Your task to perform on an android device: What's the news in Pakistan? Image 0: 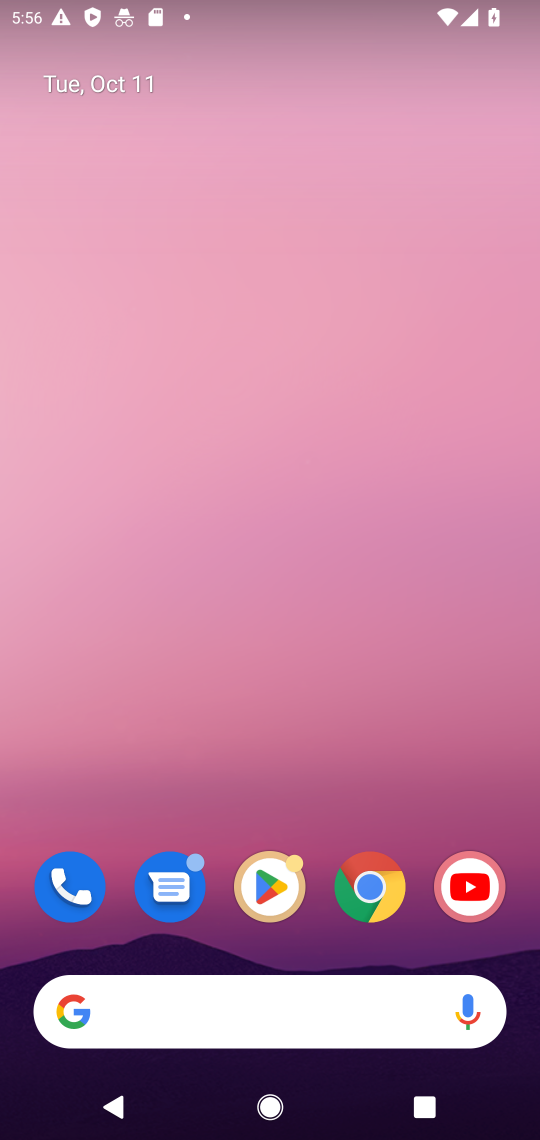
Step 0: click (201, 1008)
Your task to perform on an android device: What's the news in Pakistan? Image 1: 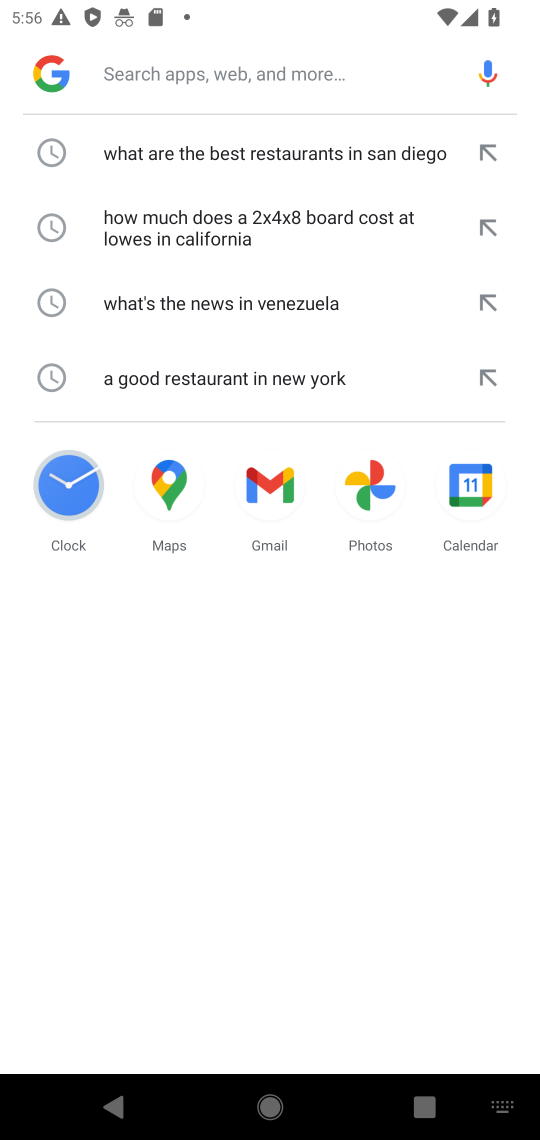
Step 1: type "What's the news in Pakistan?"
Your task to perform on an android device: What's the news in Pakistan? Image 2: 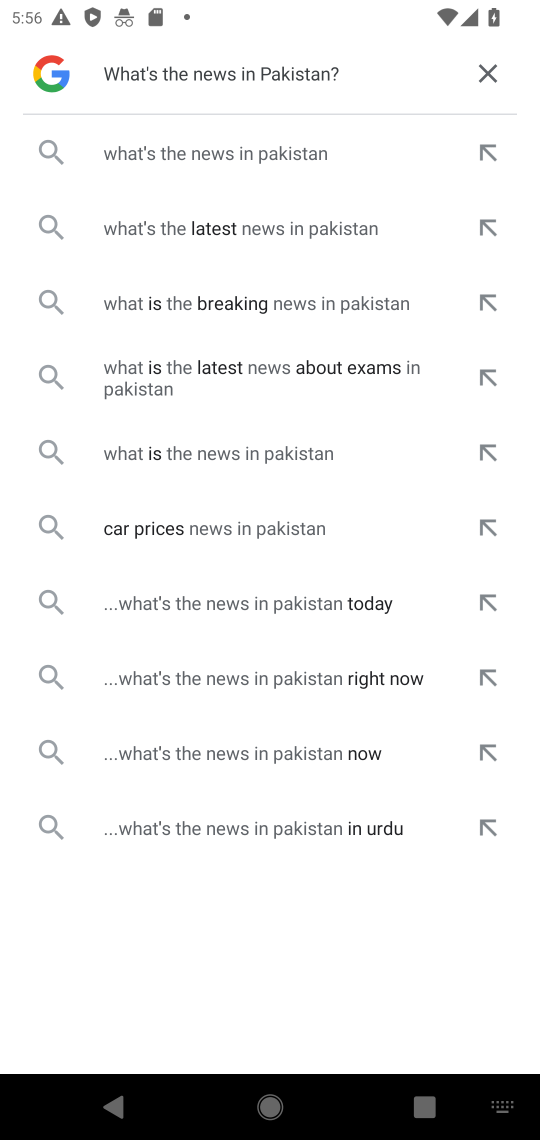
Step 2: click (141, 167)
Your task to perform on an android device: What's the news in Pakistan? Image 3: 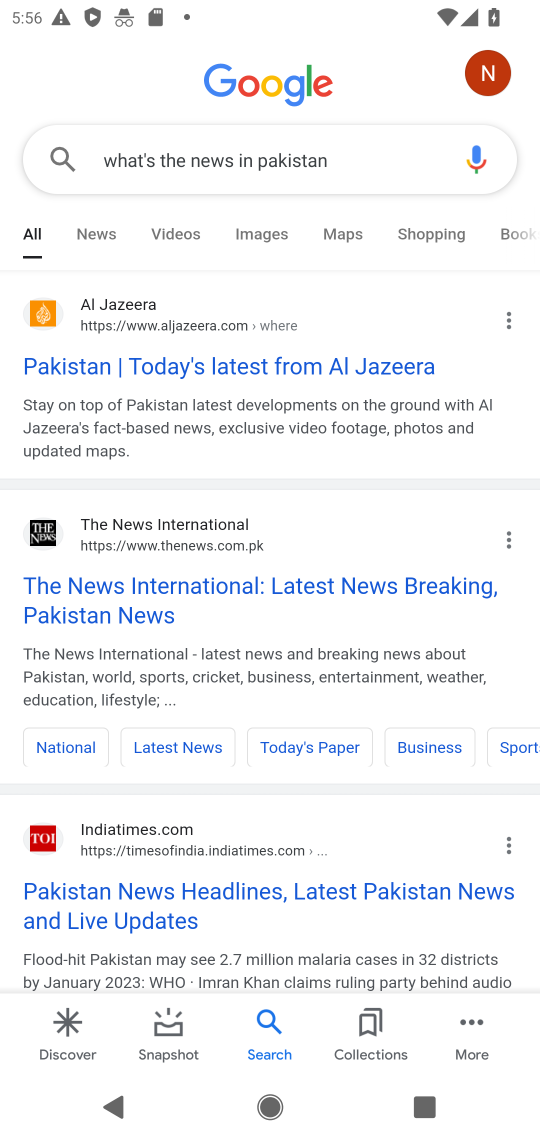
Step 3: click (102, 227)
Your task to perform on an android device: What's the news in Pakistan? Image 4: 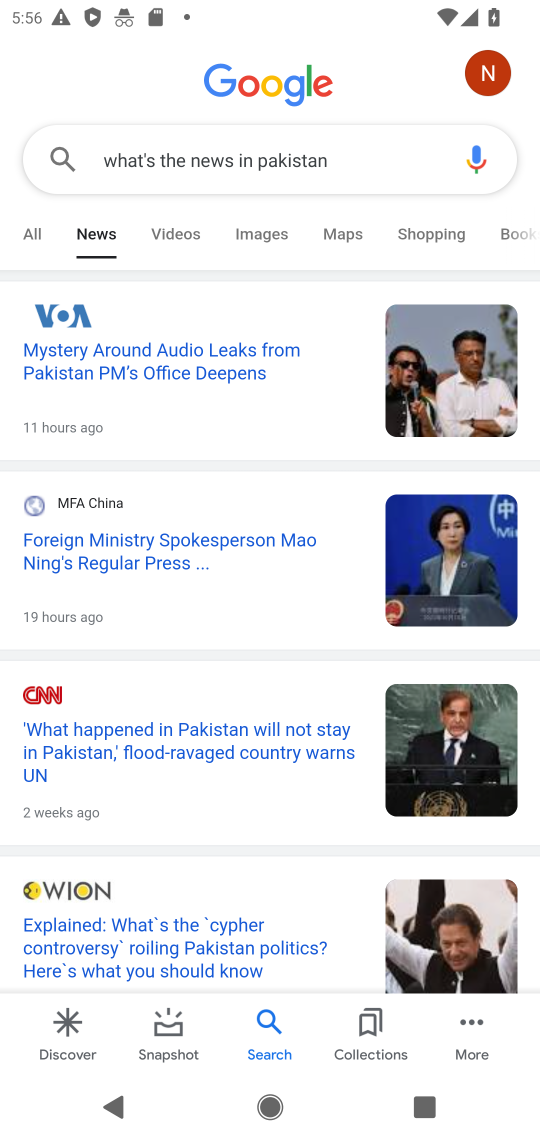
Step 4: task complete